Your task to perform on an android device: all mails in gmail Image 0: 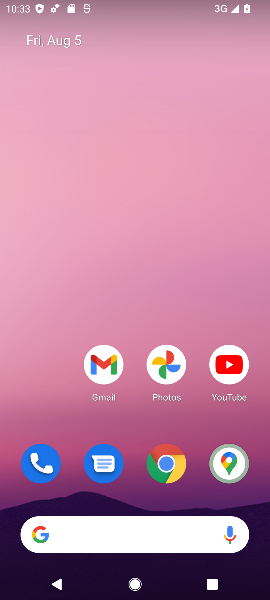
Step 0: drag from (111, 484) to (143, 76)
Your task to perform on an android device: all mails in gmail Image 1: 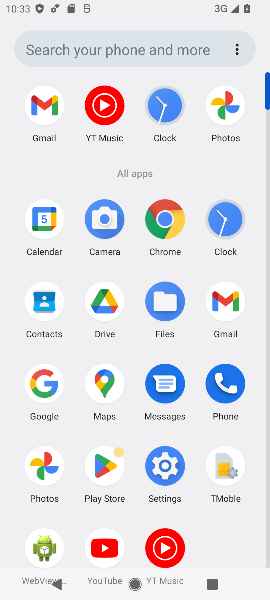
Step 1: click (226, 301)
Your task to perform on an android device: all mails in gmail Image 2: 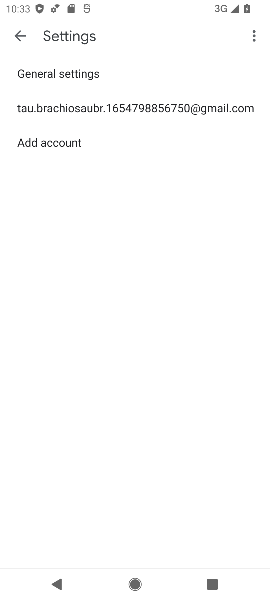
Step 2: click (15, 33)
Your task to perform on an android device: all mails in gmail Image 3: 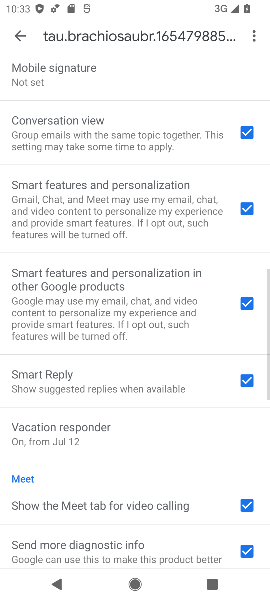
Step 3: click (15, 31)
Your task to perform on an android device: all mails in gmail Image 4: 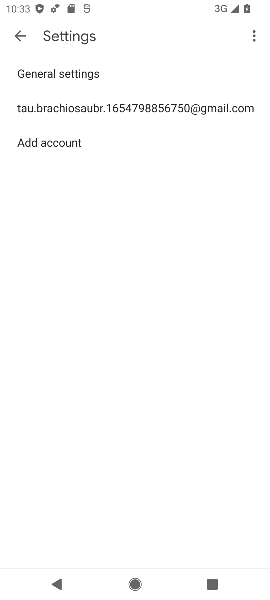
Step 4: click (15, 37)
Your task to perform on an android device: all mails in gmail Image 5: 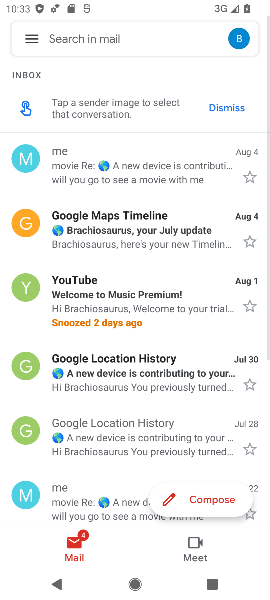
Step 5: click (33, 31)
Your task to perform on an android device: all mails in gmail Image 6: 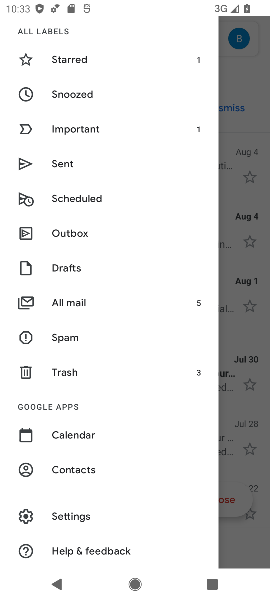
Step 6: click (70, 285)
Your task to perform on an android device: all mails in gmail Image 7: 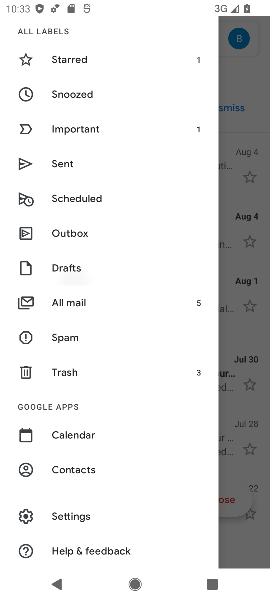
Step 7: click (70, 291)
Your task to perform on an android device: all mails in gmail Image 8: 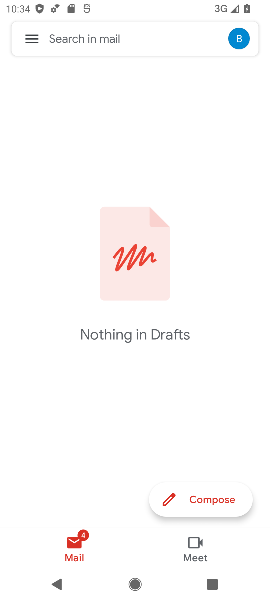
Step 8: click (41, 27)
Your task to perform on an android device: all mails in gmail Image 9: 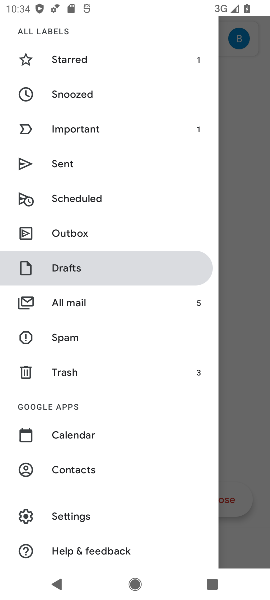
Step 9: click (65, 295)
Your task to perform on an android device: all mails in gmail Image 10: 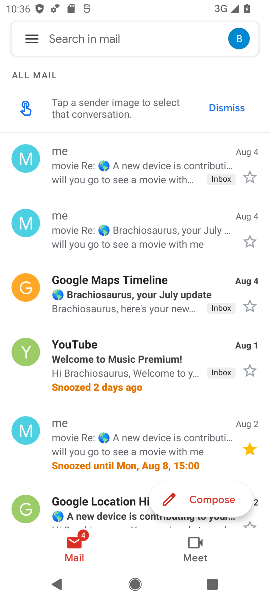
Step 10: task complete